Your task to perform on an android device: change notification settings in the gmail app Image 0: 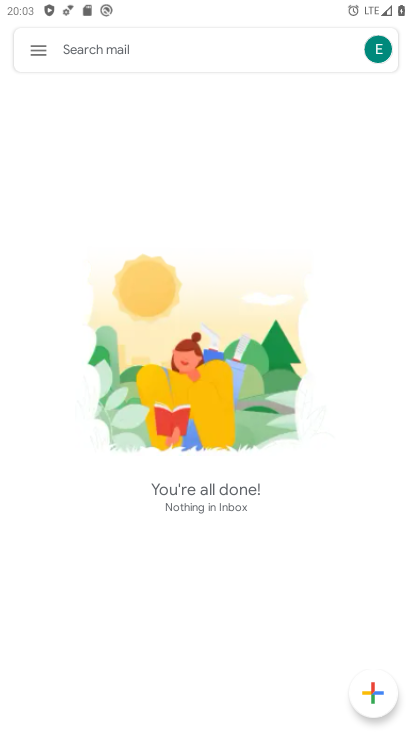
Step 0: press home button
Your task to perform on an android device: change notification settings in the gmail app Image 1: 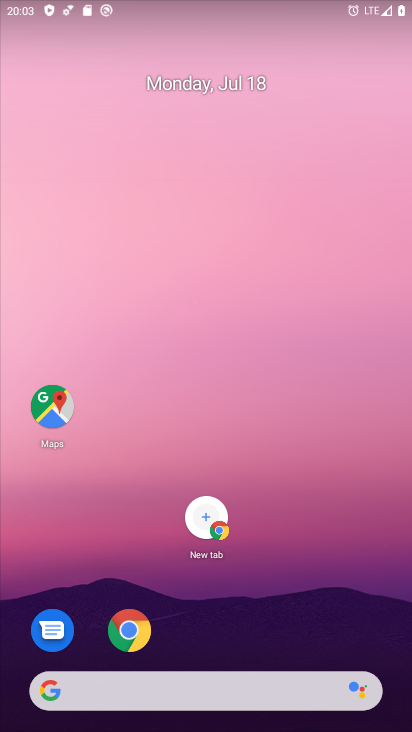
Step 1: drag from (149, 668) to (208, 388)
Your task to perform on an android device: change notification settings in the gmail app Image 2: 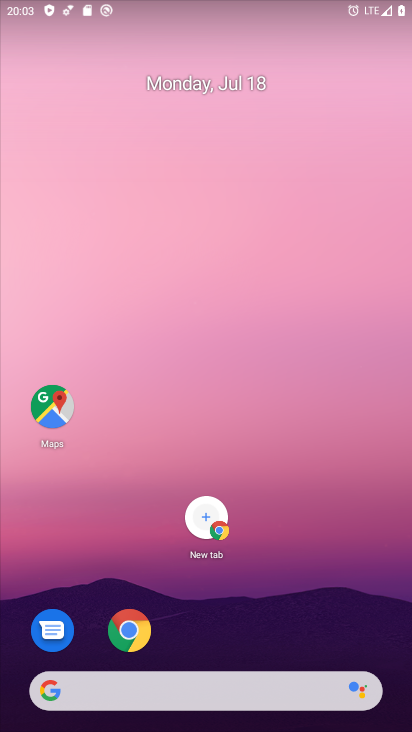
Step 2: drag from (215, 667) to (278, 143)
Your task to perform on an android device: change notification settings in the gmail app Image 3: 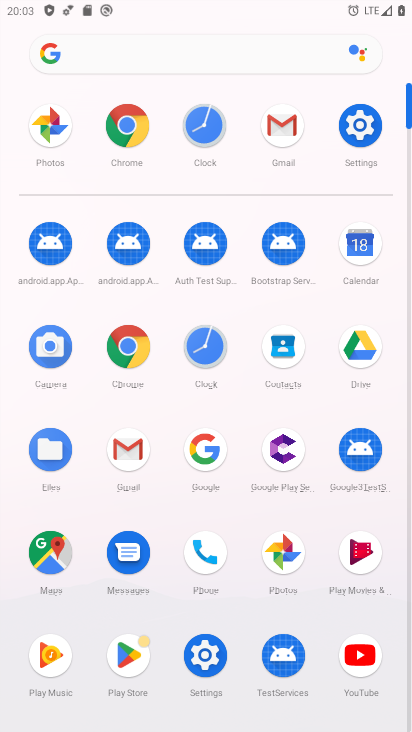
Step 3: click (129, 446)
Your task to perform on an android device: change notification settings in the gmail app Image 4: 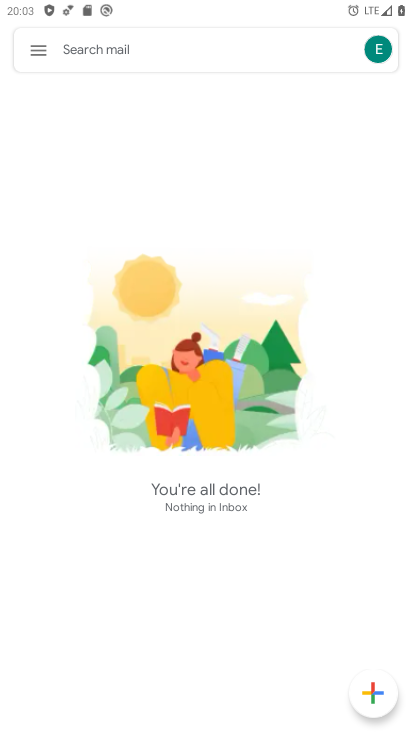
Step 4: click (46, 45)
Your task to perform on an android device: change notification settings in the gmail app Image 5: 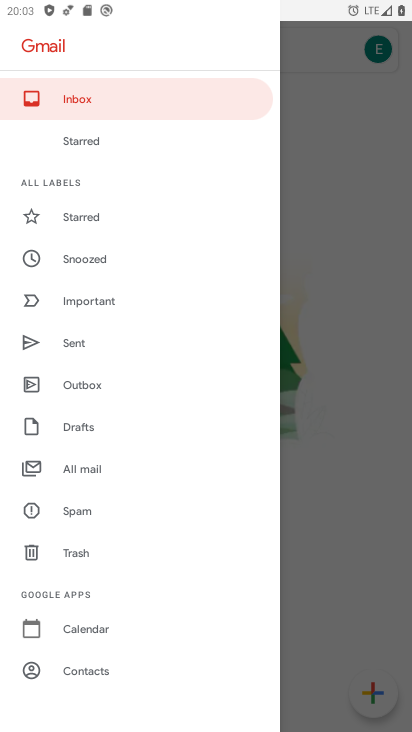
Step 5: drag from (108, 556) to (116, 292)
Your task to perform on an android device: change notification settings in the gmail app Image 6: 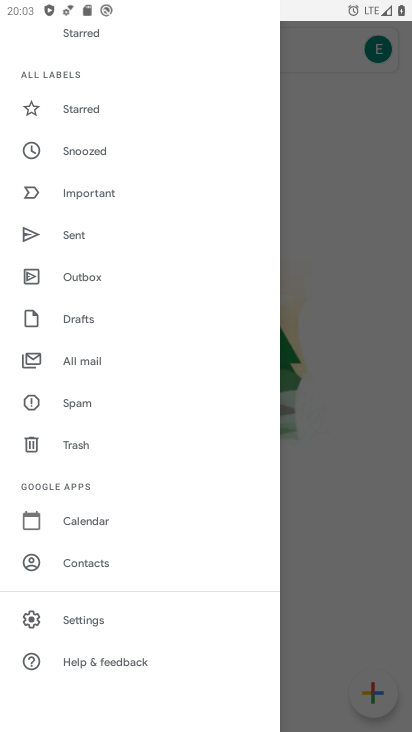
Step 6: click (77, 614)
Your task to perform on an android device: change notification settings in the gmail app Image 7: 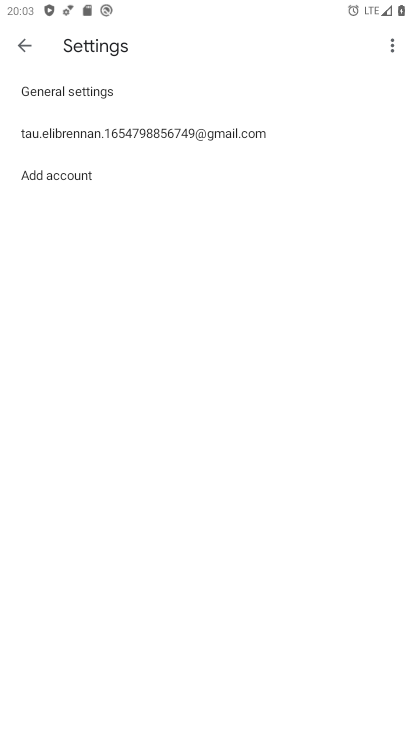
Step 7: click (144, 136)
Your task to perform on an android device: change notification settings in the gmail app Image 8: 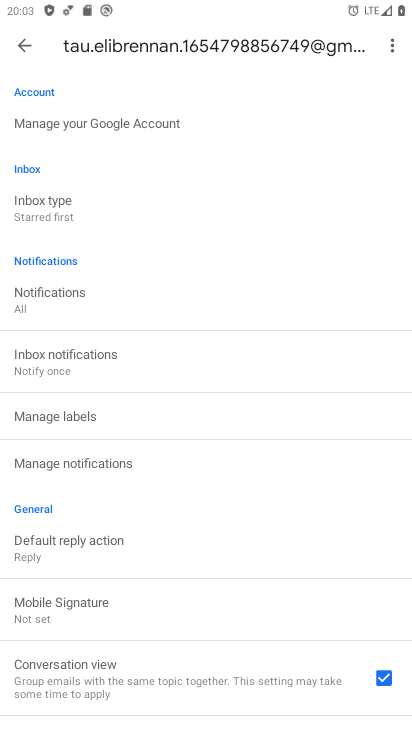
Step 8: click (52, 295)
Your task to perform on an android device: change notification settings in the gmail app Image 9: 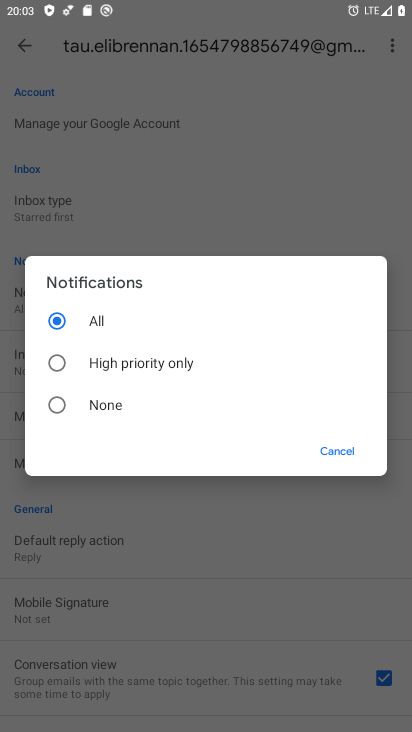
Step 9: click (88, 364)
Your task to perform on an android device: change notification settings in the gmail app Image 10: 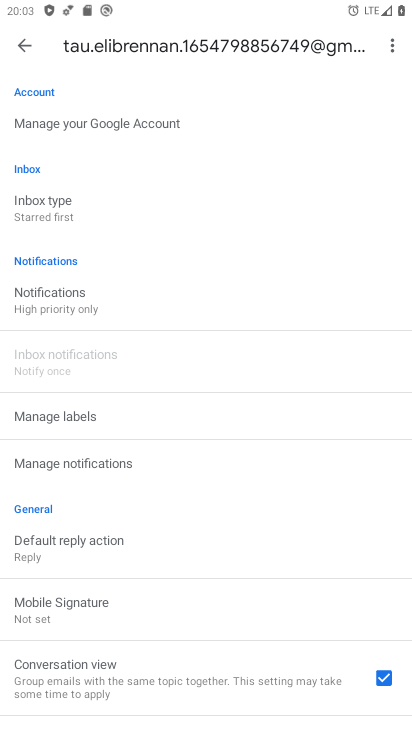
Step 10: task complete